Your task to perform on an android device: toggle priority inbox in the gmail app Image 0: 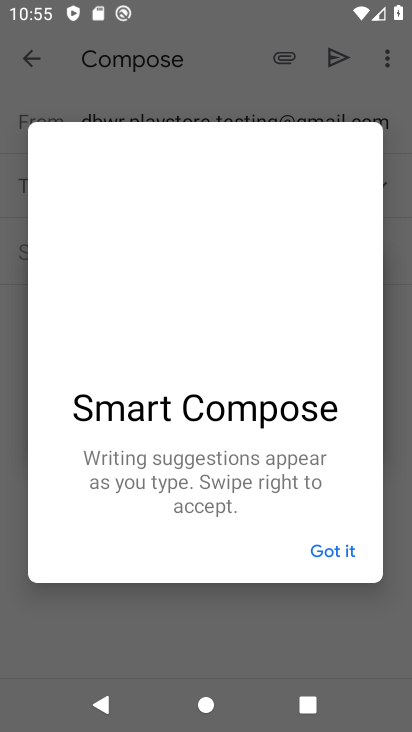
Step 0: press home button
Your task to perform on an android device: toggle priority inbox in the gmail app Image 1: 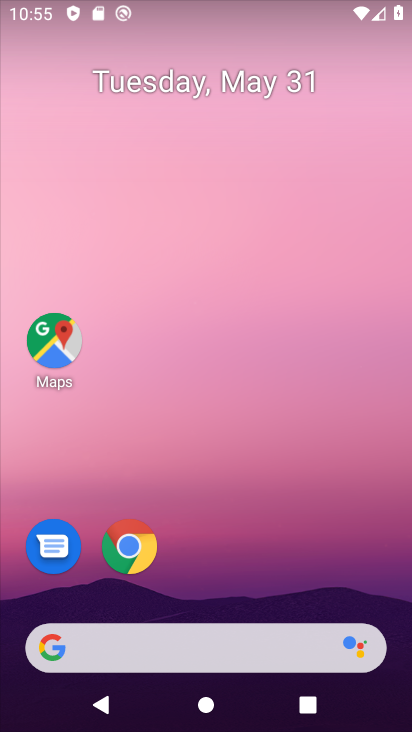
Step 1: drag from (196, 608) to (168, 23)
Your task to perform on an android device: toggle priority inbox in the gmail app Image 2: 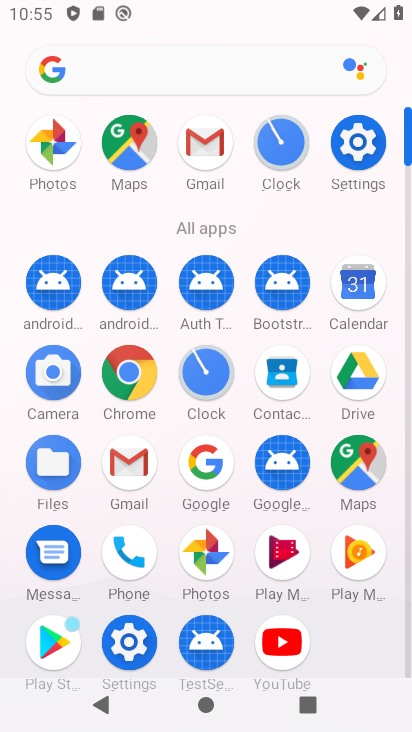
Step 2: click (128, 476)
Your task to perform on an android device: toggle priority inbox in the gmail app Image 3: 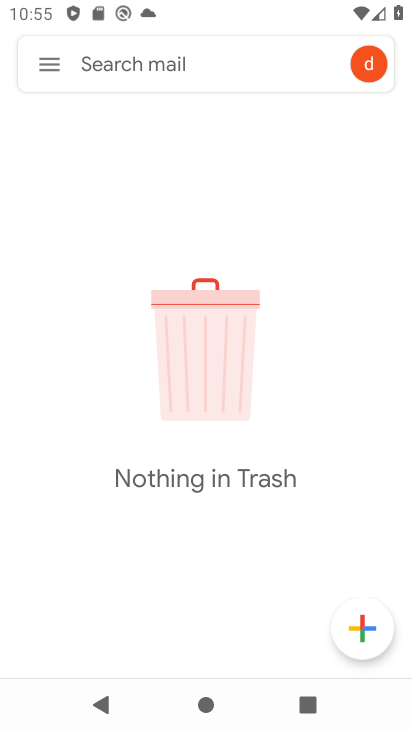
Step 3: click (52, 71)
Your task to perform on an android device: toggle priority inbox in the gmail app Image 4: 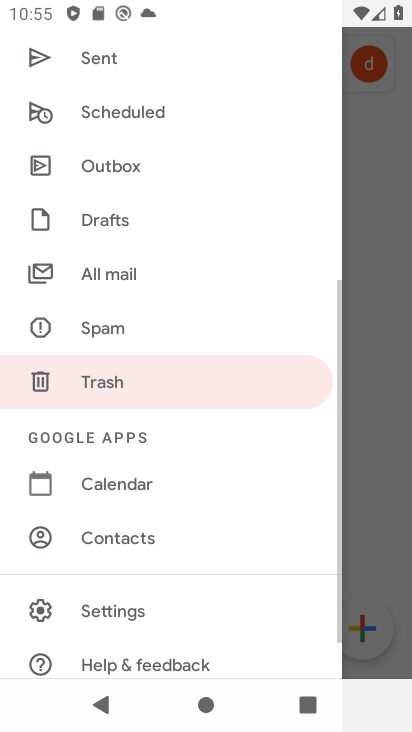
Step 4: click (129, 607)
Your task to perform on an android device: toggle priority inbox in the gmail app Image 5: 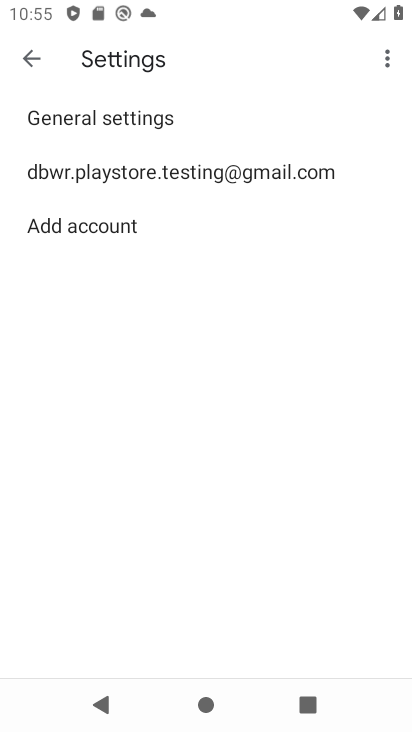
Step 5: click (79, 164)
Your task to perform on an android device: toggle priority inbox in the gmail app Image 6: 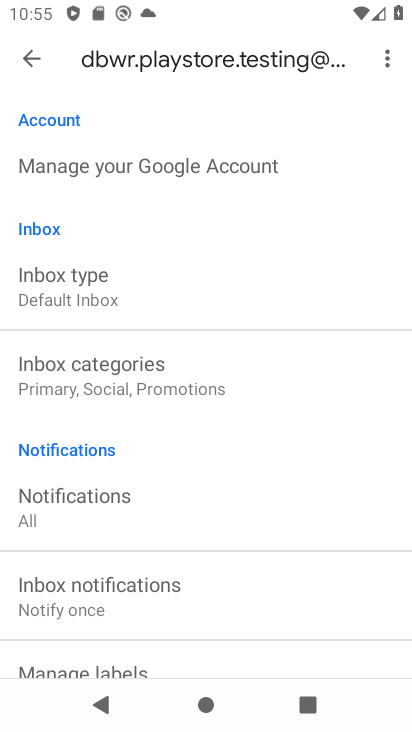
Step 6: click (51, 287)
Your task to perform on an android device: toggle priority inbox in the gmail app Image 7: 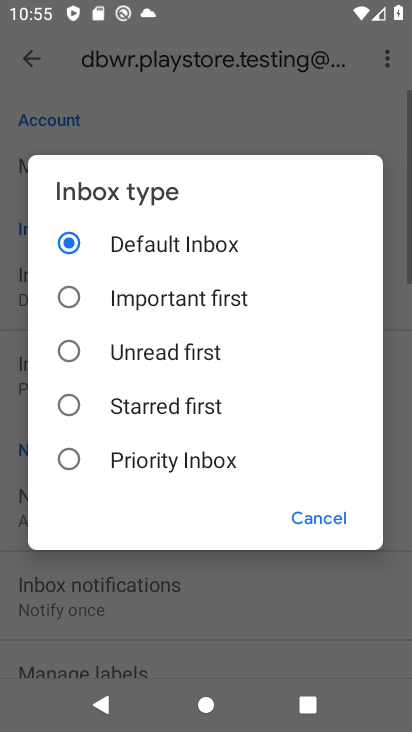
Step 7: click (148, 466)
Your task to perform on an android device: toggle priority inbox in the gmail app Image 8: 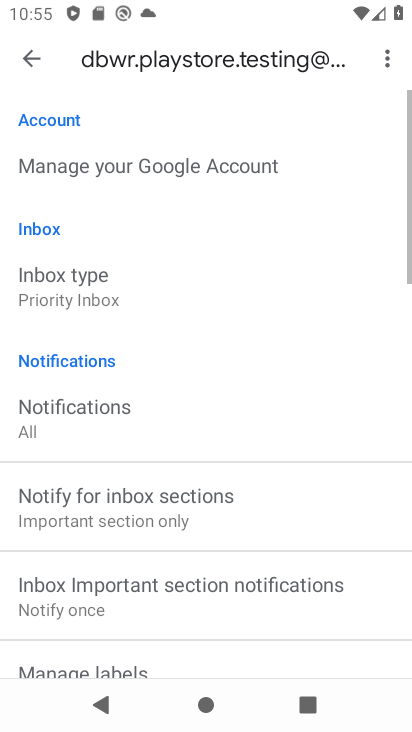
Step 8: task complete